Your task to perform on an android device: find which apps use the phone's location Image 0: 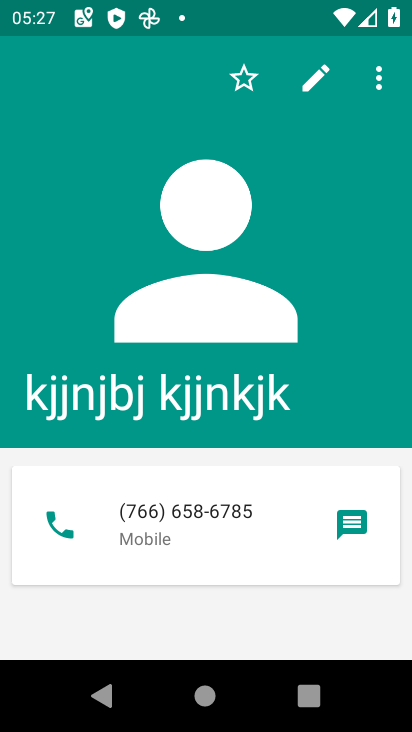
Step 0: press home button
Your task to perform on an android device: find which apps use the phone's location Image 1: 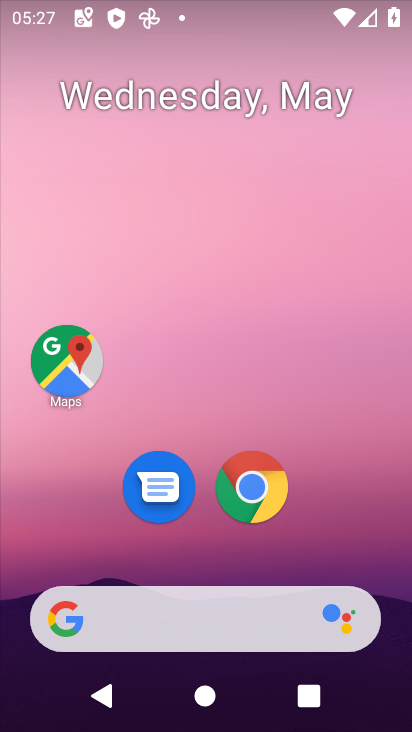
Step 1: drag from (330, 499) to (229, 151)
Your task to perform on an android device: find which apps use the phone's location Image 2: 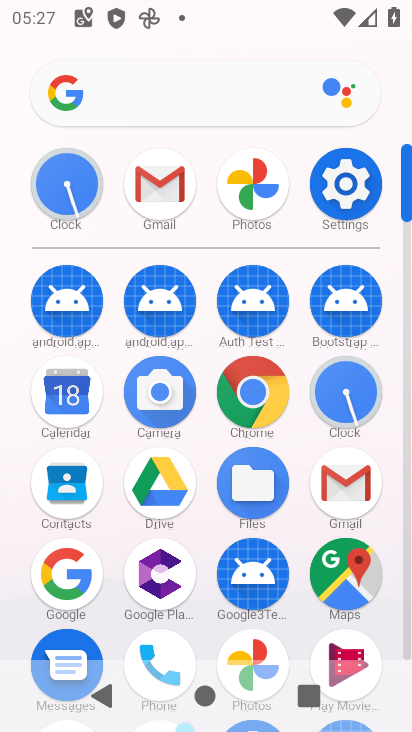
Step 2: click (332, 210)
Your task to perform on an android device: find which apps use the phone's location Image 3: 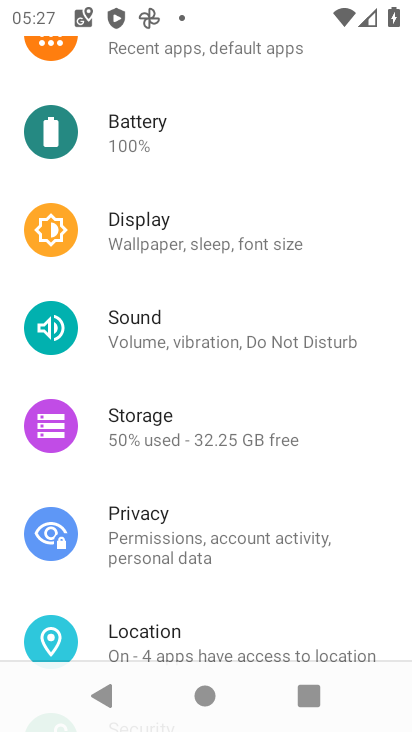
Step 3: click (211, 618)
Your task to perform on an android device: find which apps use the phone's location Image 4: 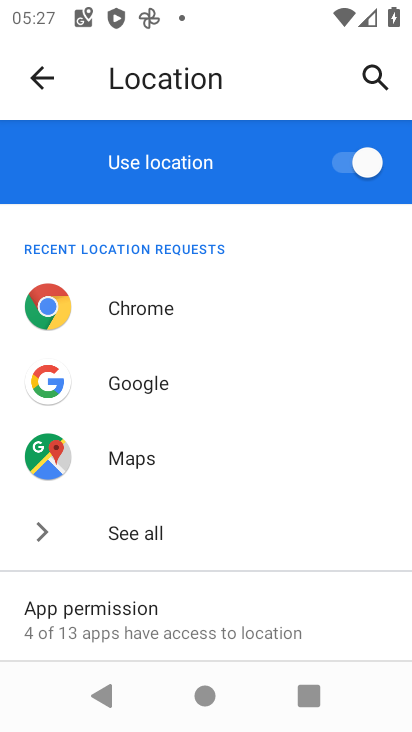
Step 4: click (207, 523)
Your task to perform on an android device: find which apps use the phone's location Image 5: 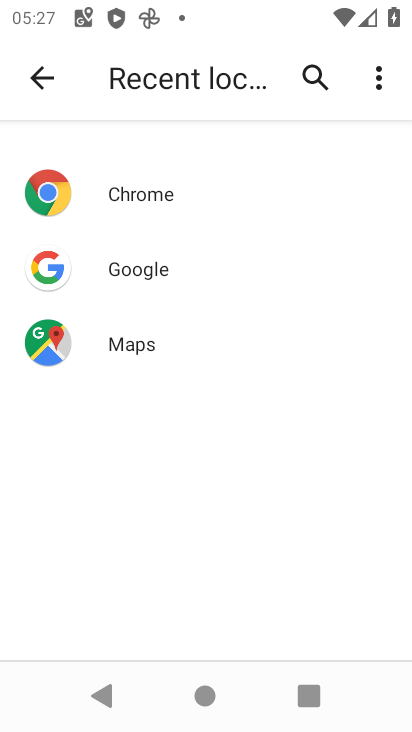
Step 5: task complete